Your task to perform on an android device: toggle priority inbox in the gmail app Image 0: 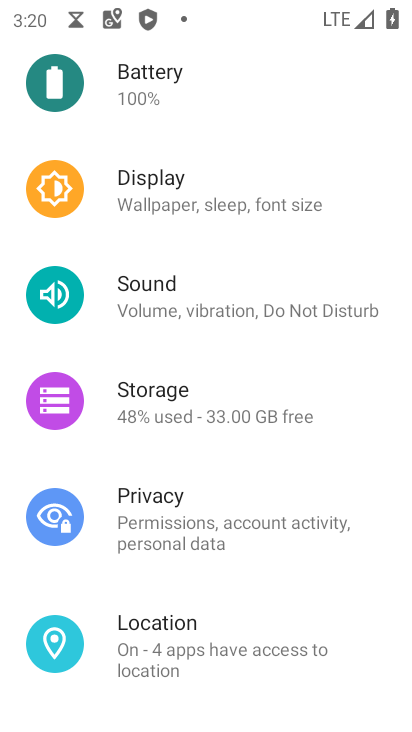
Step 0: press home button
Your task to perform on an android device: toggle priority inbox in the gmail app Image 1: 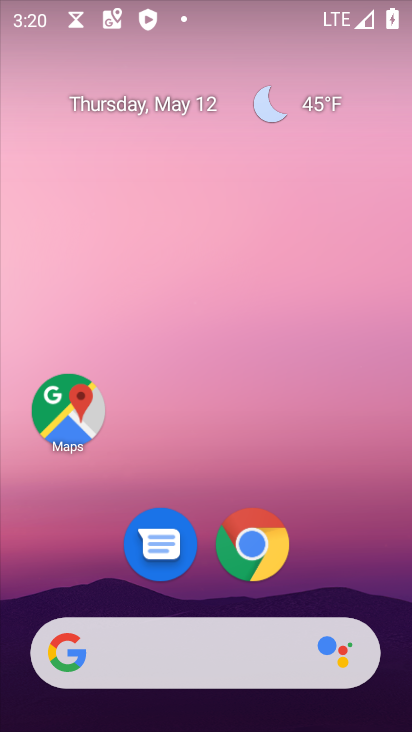
Step 1: drag from (374, 539) to (281, 66)
Your task to perform on an android device: toggle priority inbox in the gmail app Image 2: 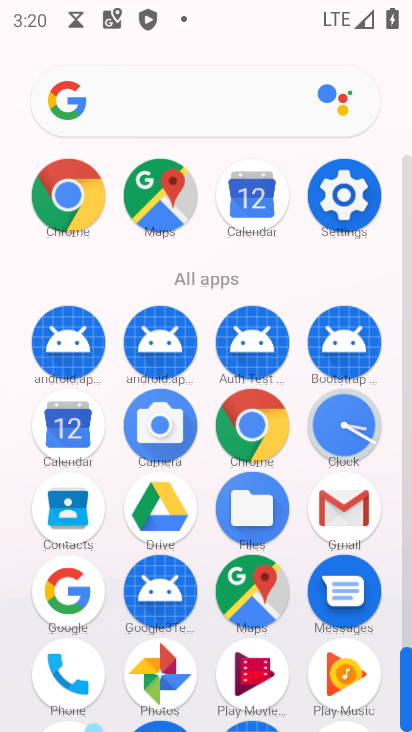
Step 2: click (347, 514)
Your task to perform on an android device: toggle priority inbox in the gmail app Image 3: 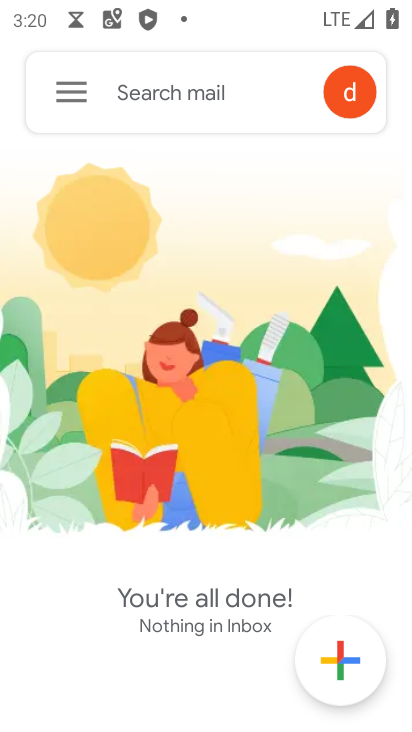
Step 3: click (58, 98)
Your task to perform on an android device: toggle priority inbox in the gmail app Image 4: 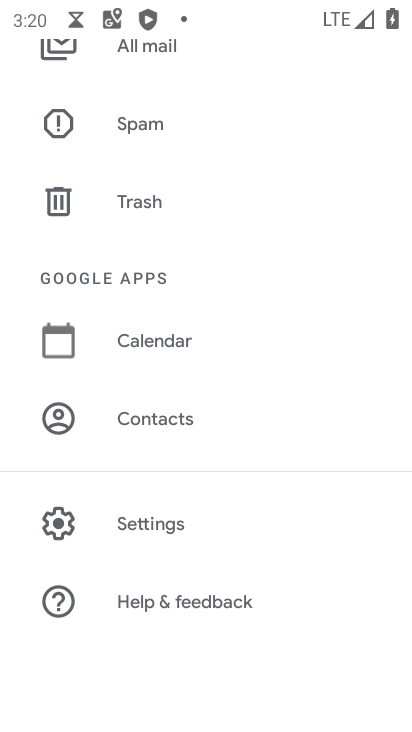
Step 4: click (217, 527)
Your task to perform on an android device: toggle priority inbox in the gmail app Image 5: 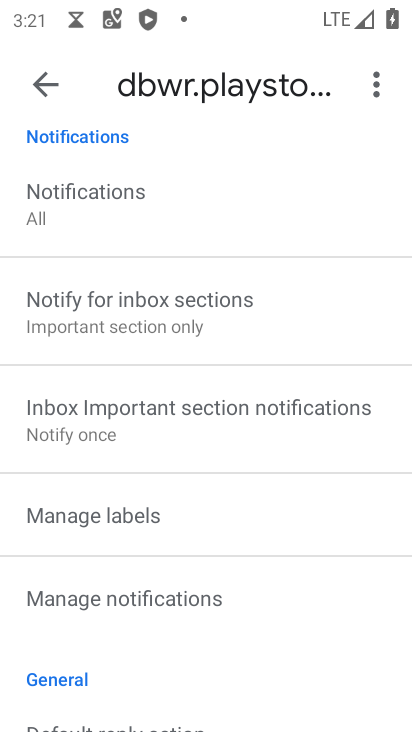
Step 5: drag from (136, 421) to (185, 595)
Your task to perform on an android device: toggle priority inbox in the gmail app Image 6: 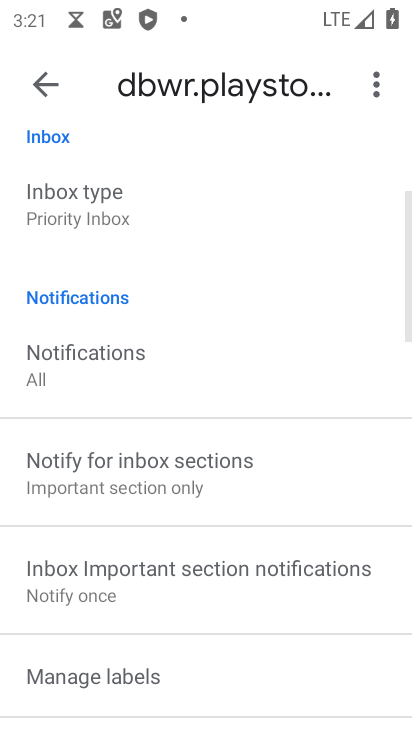
Step 6: drag from (161, 315) to (190, 462)
Your task to perform on an android device: toggle priority inbox in the gmail app Image 7: 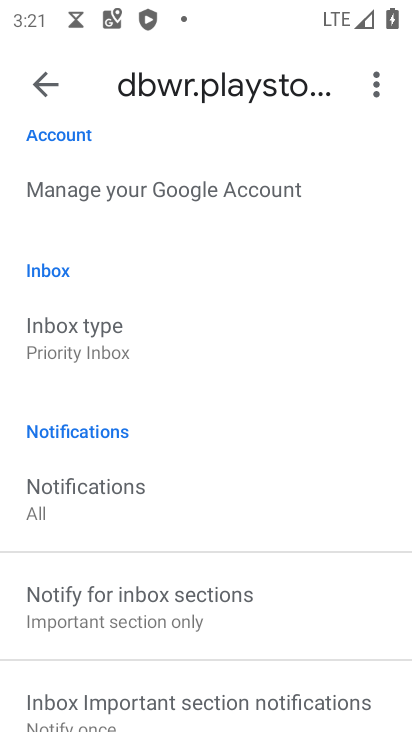
Step 7: click (115, 345)
Your task to perform on an android device: toggle priority inbox in the gmail app Image 8: 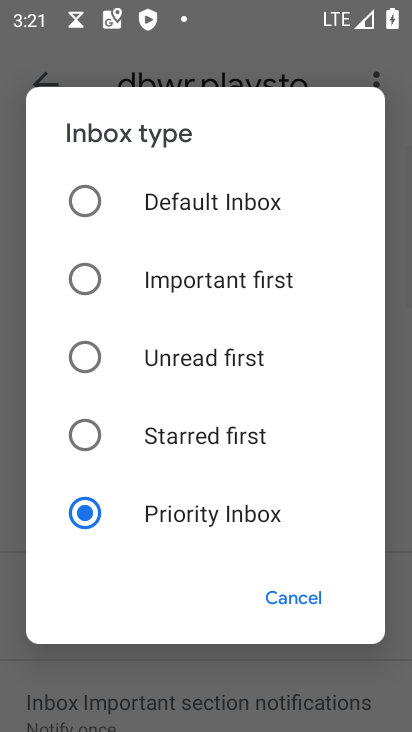
Step 8: click (176, 184)
Your task to perform on an android device: toggle priority inbox in the gmail app Image 9: 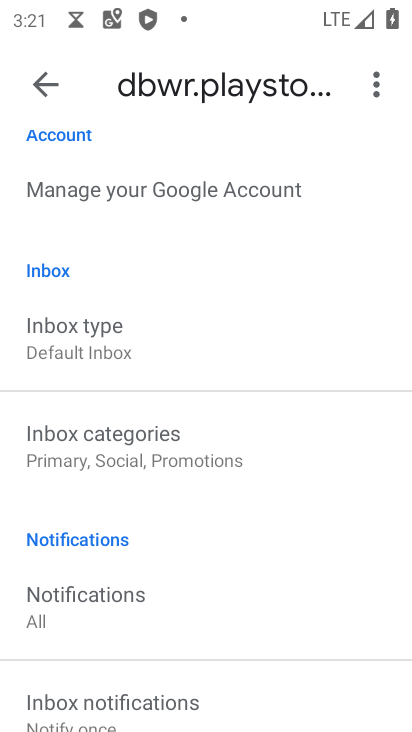
Step 9: task complete